Your task to perform on an android device: check android version Image 0: 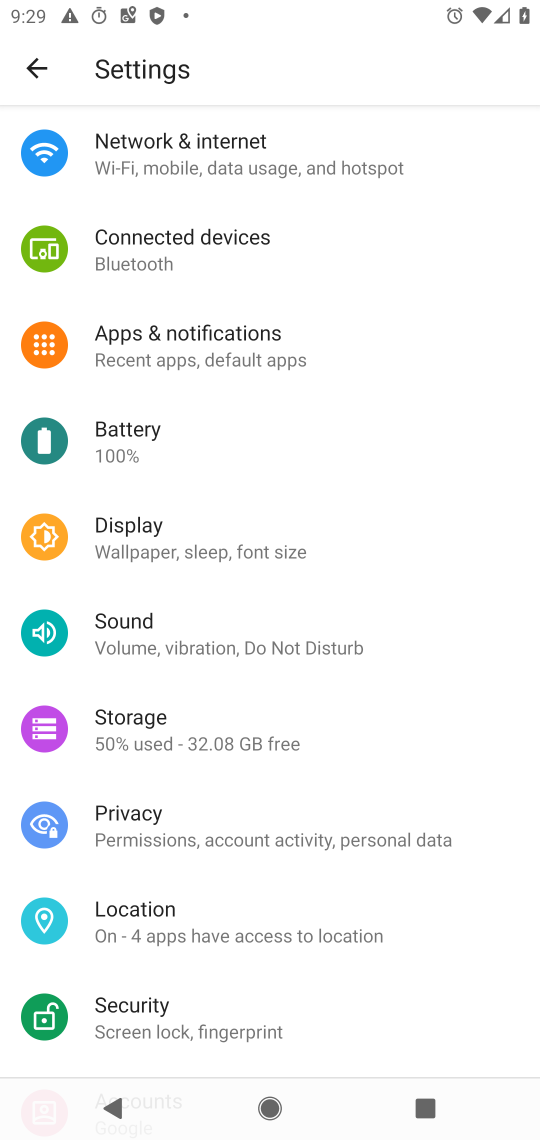
Step 0: press home button
Your task to perform on an android device: check android version Image 1: 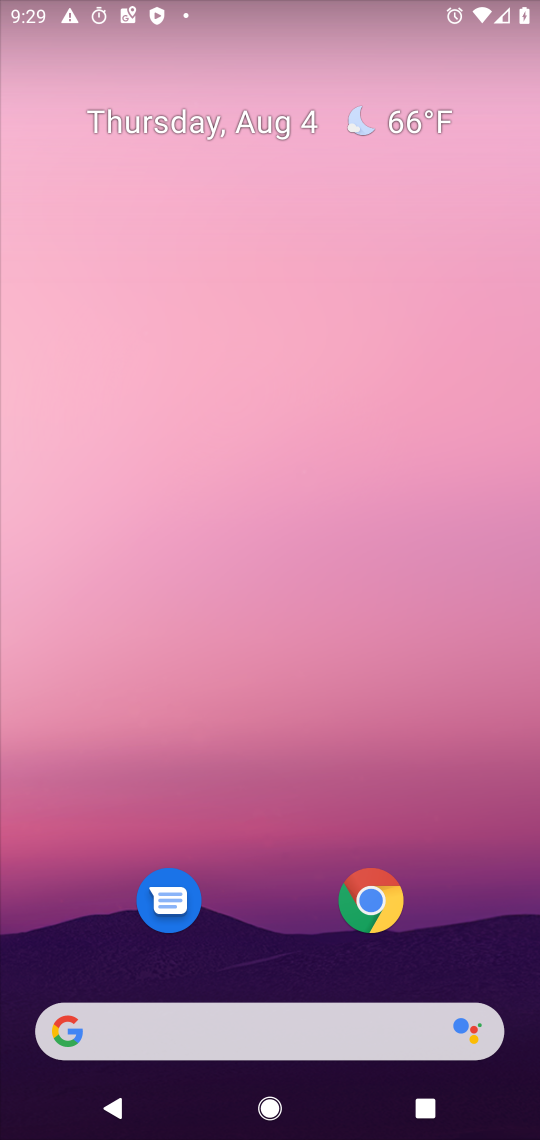
Step 1: drag from (210, 1019) to (228, 271)
Your task to perform on an android device: check android version Image 2: 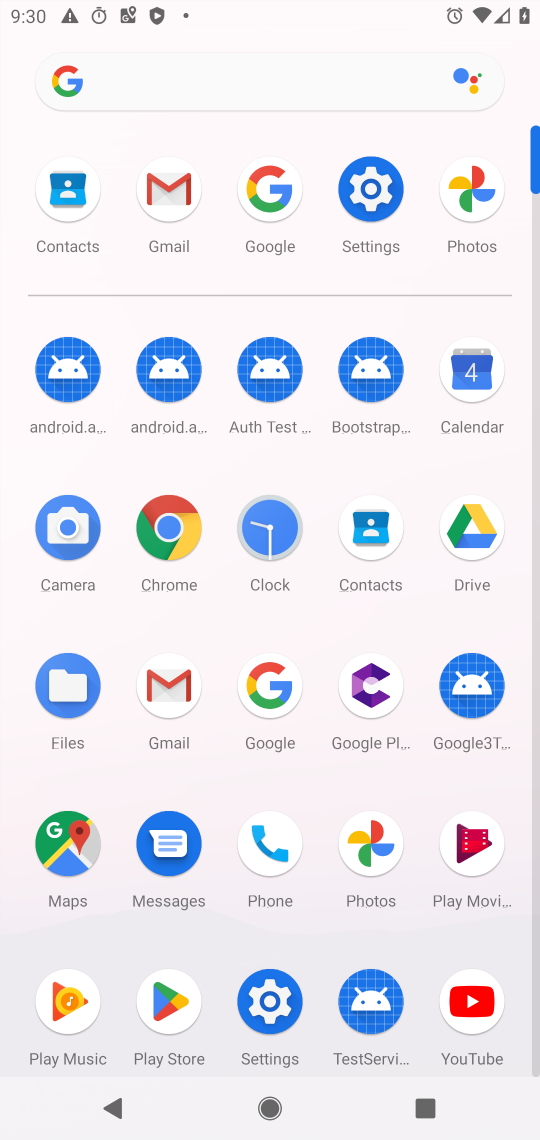
Step 2: click (369, 187)
Your task to perform on an android device: check android version Image 3: 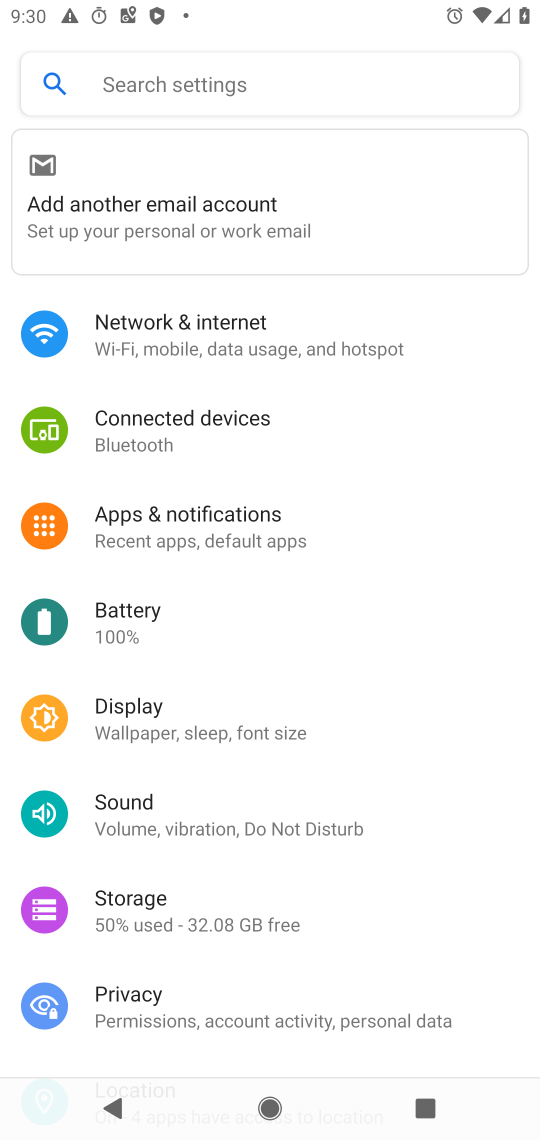
Step 3: drag from (194, 756) to (229, 455)
Your task to perform on an android device: check android version Image 4: 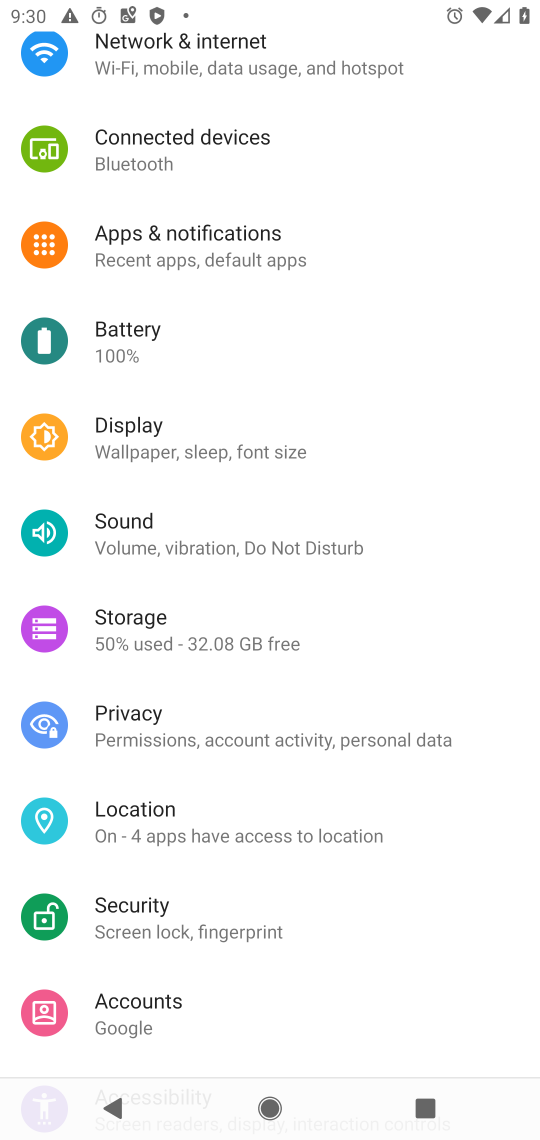
Step 4: drag from (225, 875) to (221, 620)
Your task to perform on an android device: check android version Image 5: 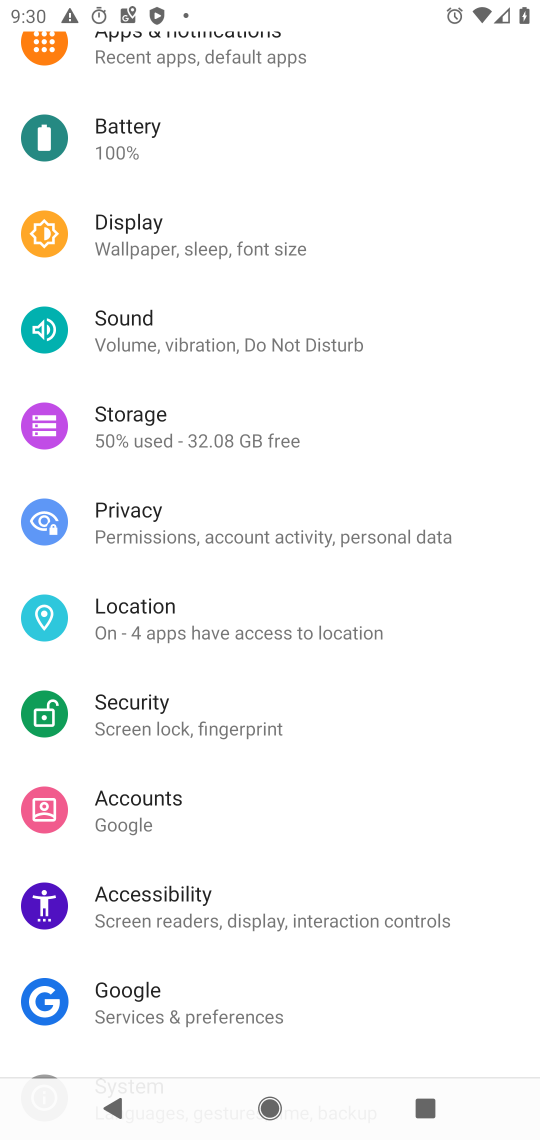
Step 5: drag from (191, 971) to (182, 666)
Your task to perform on an android device: check android version Image 6: 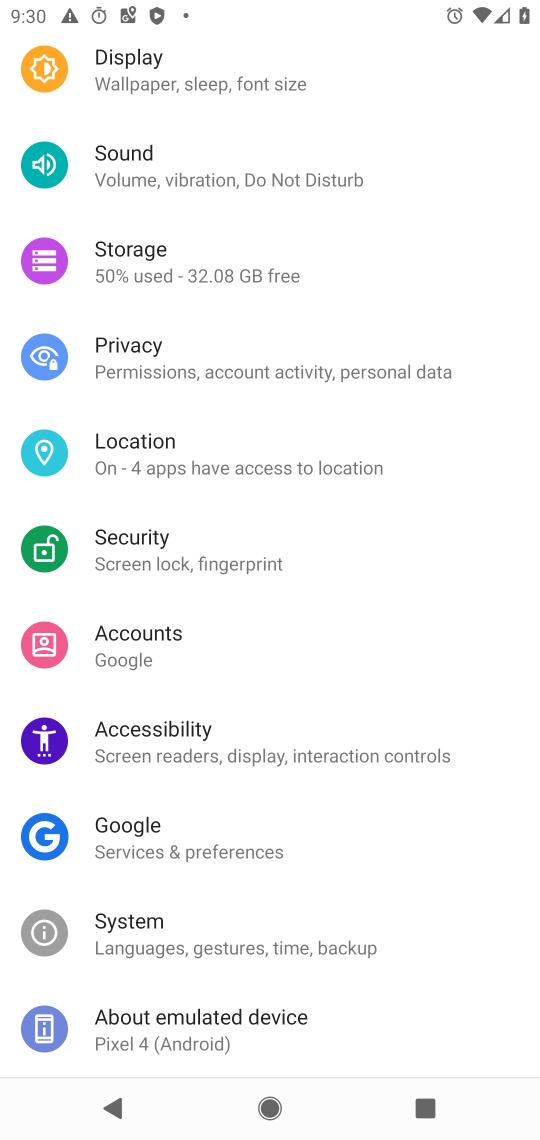
Step 6: click (184, 1033)
Your task to perform on an android device: check android version Image 7: 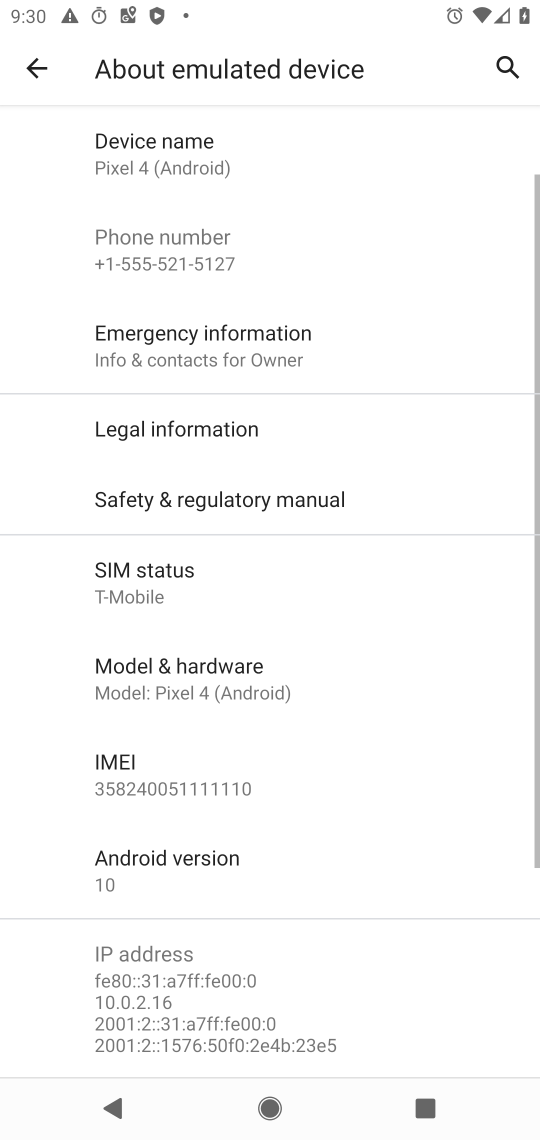
Step 7: click (173, 865)
Your task to perform on an android device: check android version Image 8: 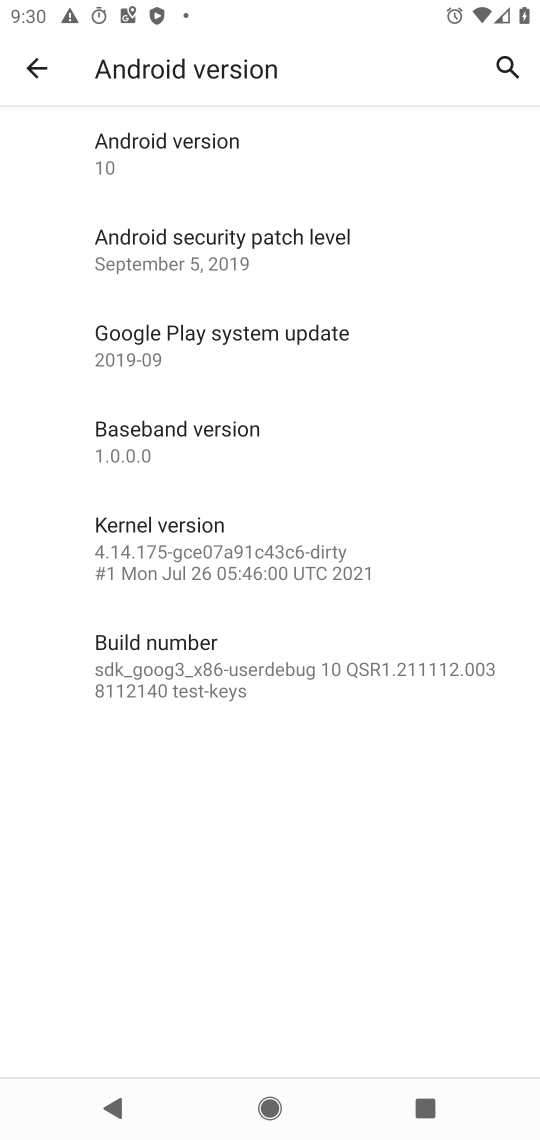
Step 8: task complete